Your task to perform on an android device: move an email to a new category in the gmail app Image 0: 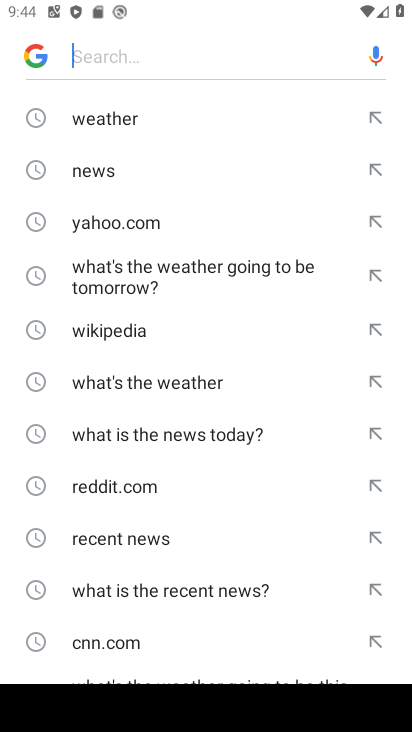
Step 0: press home button
Your task to perform on an android device: move an email to a new category in the gmail app Image 1: 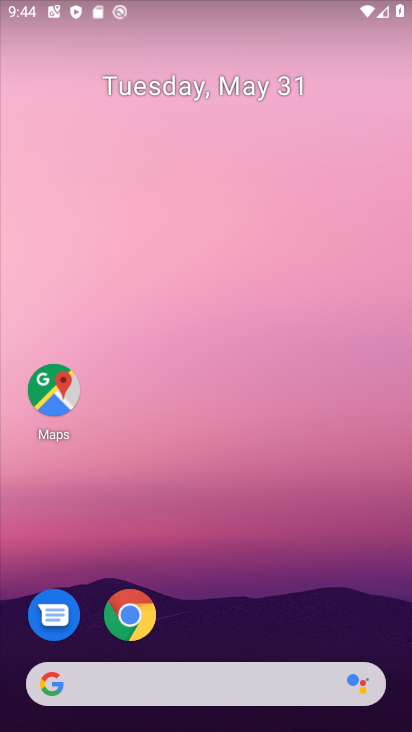
Step 1: drag from (272, 617) to (253, 0)
Your task to perform on an android device: move an email to a new category in the gmail app Image 2: 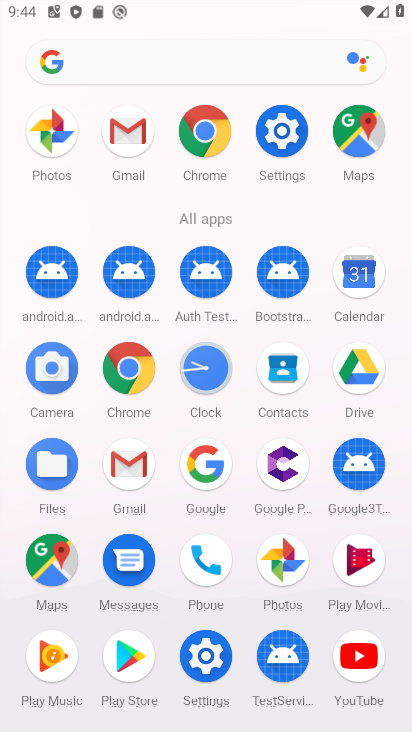
Step 2: click (135, 469)
Your task to perform on an android device: move an email to a new category in the gmail app Image 3: 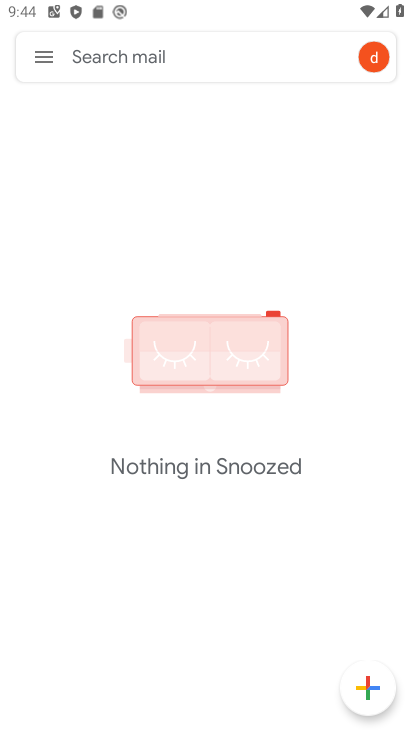
Step 3: click (43, 79)
Your task to perform on an android device: move an email to a new category in the gmail app Image 4: 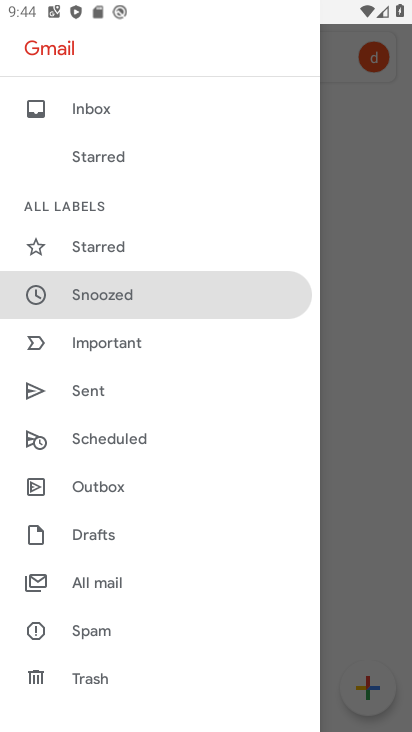
Step 4: click (91, 588)
Your task to perform on an android device: move an email to a new category in the gmail app Image 5: 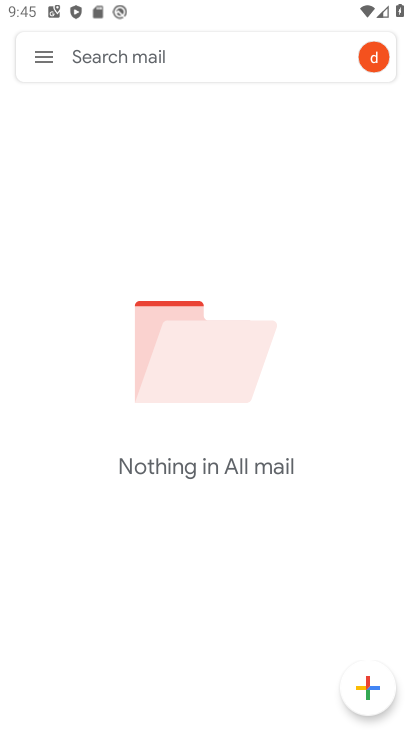
Step 5: task complete